Your task to perform on an android device: create a new album in the google photos Image 0: 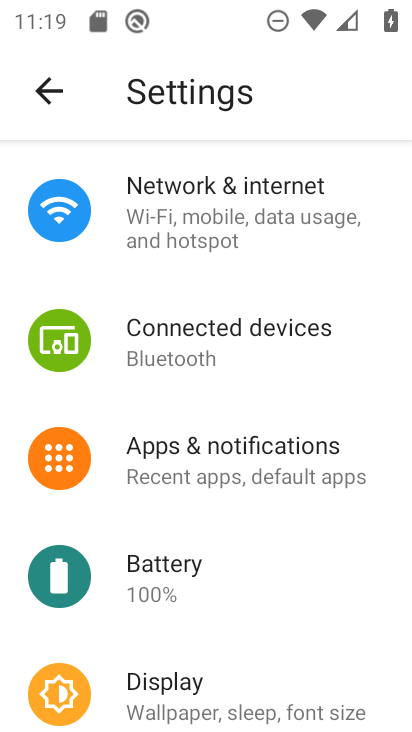
Step 0: press home button
Your task to perform on an android device: create a new album in the google photos Image 1: 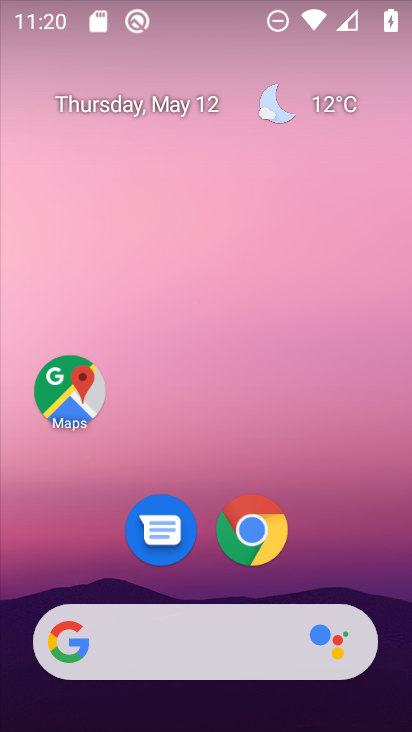
Step 1: drag from (205, 642) to (360, 77)
Your task to perform on an android device: create a new album in the google photos Image 2: 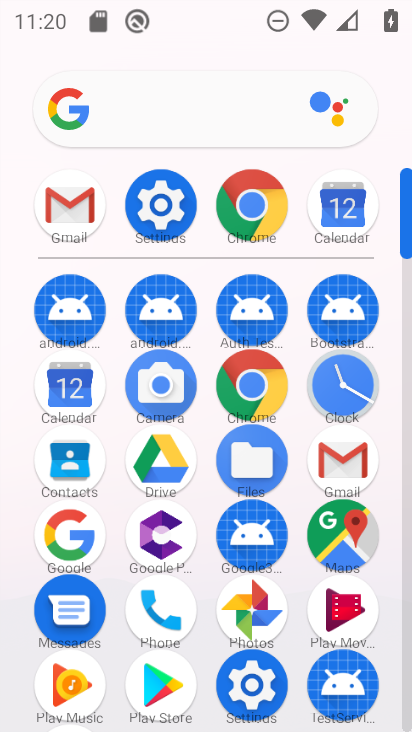
Step 2: click (248, 594)
Your task to perform on an android device: create a new album in the google photos Image 3: 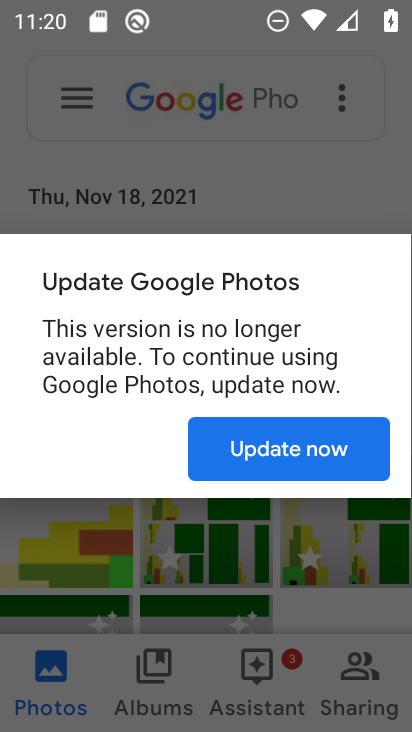
Step 3: click (309, 436)
Your task to perform on an android device: create a new album in the google photos Image 4: 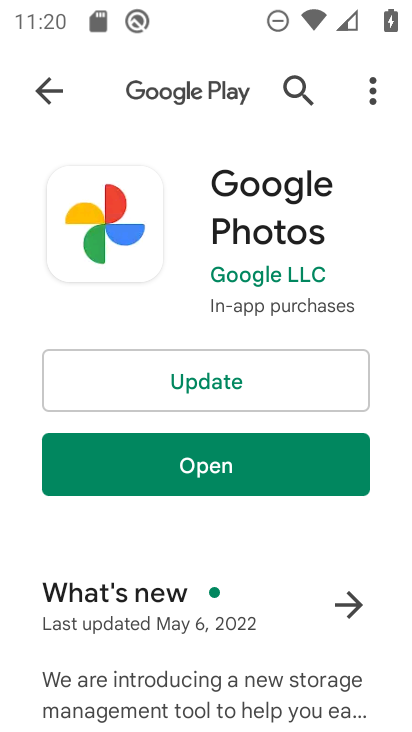
Step 4: click (235, 453)
Your task to perform on an android device: create a new album in the google photos Image 5: 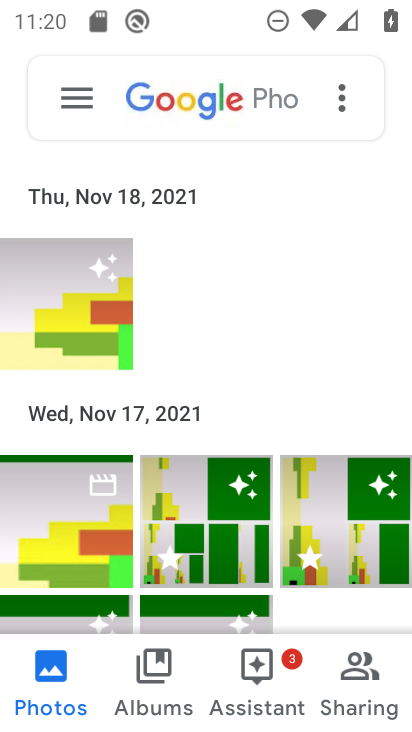
Step 5: click (146, 659)
Your task to perform on an android device: create a new album in the google photos Image 6: 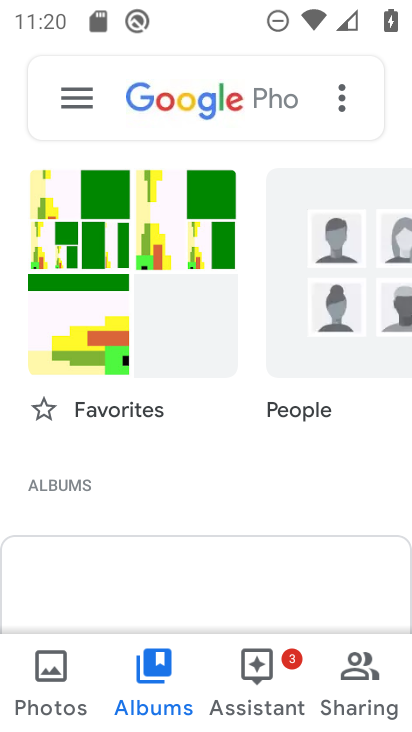
Step 6: drag from (160, 503) to (373, 81)
Your task to perform on an android device: create a new album in the google photos Image 7: 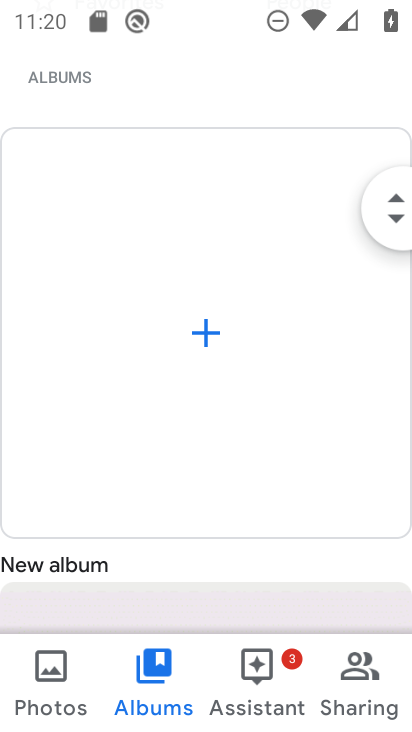
Step 7: click (201, 332)
Your task to perform on an android device: create a new album in the google photos Image 8: 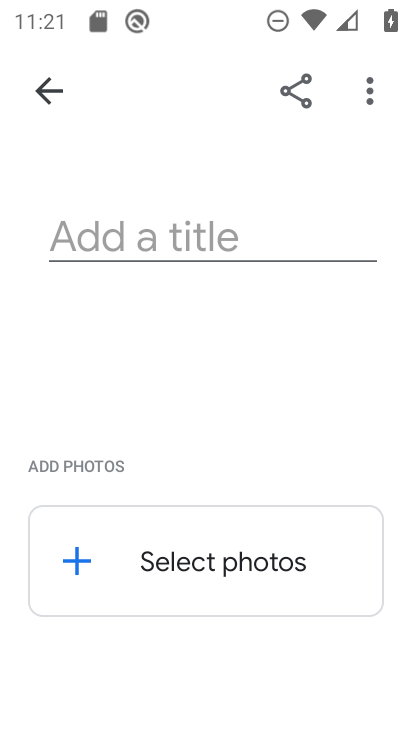
Step 8: click (178, 560)
Your task to perform on an android device: create a new album in the google photos Image 9: 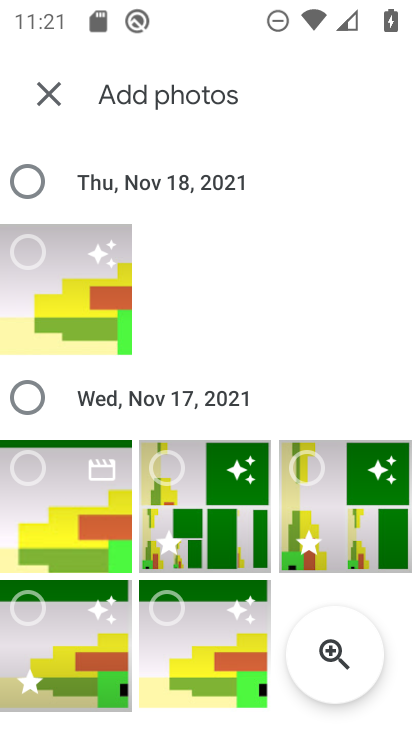
Step 9: click (90, 268)
Your task to perform on an android device: create a new album in the google photos Image 10: 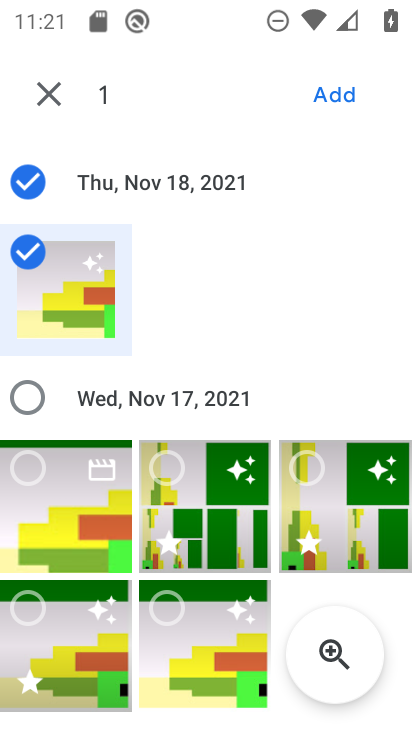
Step 10: click (63, 483)
Your task to perform on an android device: create a new album in the google photos Image 11: 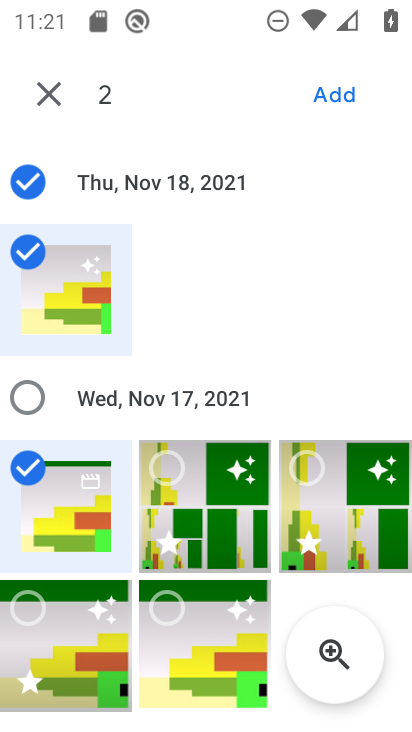
Step 11: click (167, 491)
Your task to perform on an android device: create a new album in the google photos Image 12: 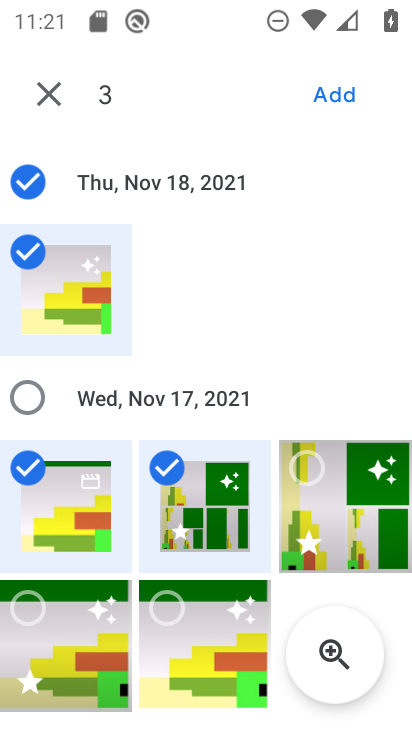
Step 12: click (344, 90)
Your task to perform on an android device: create a new album in the google photos Image 13: 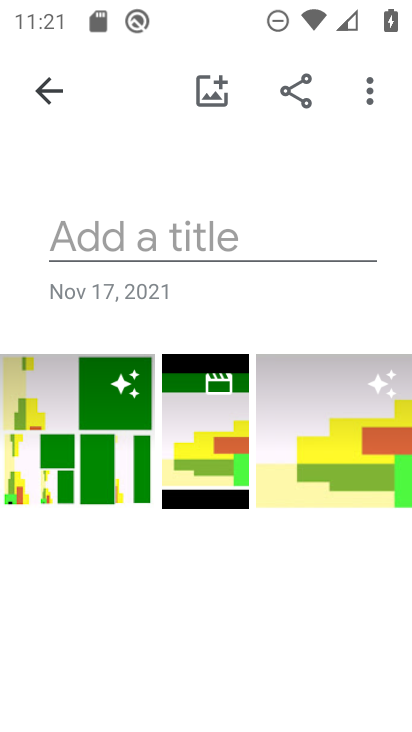
Step 13: task complete